Your task to perform on an android device: check google app version Image 0: 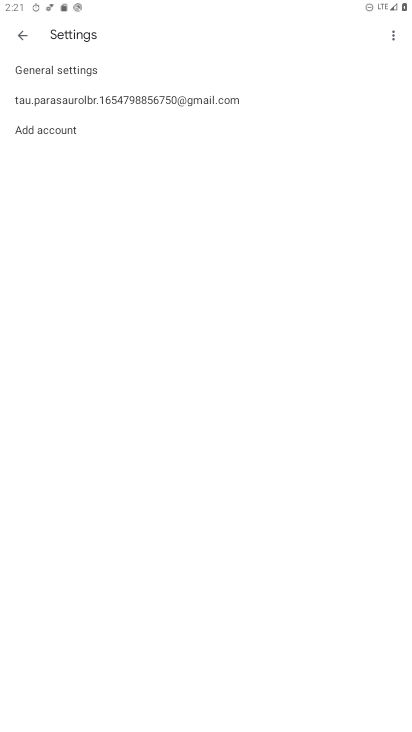
Step 0: press home button
Your task to perform on an android device: check google app version Image 1: 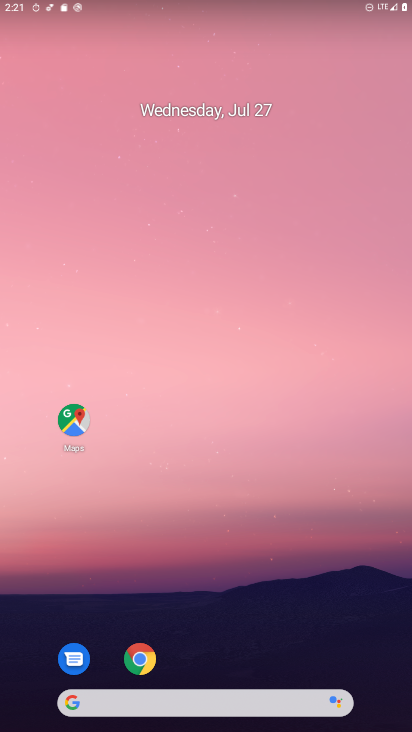
Step 1: drag from (319, 606) to (200, 77)
Your task to perform on an android device: check google app version Image 2: 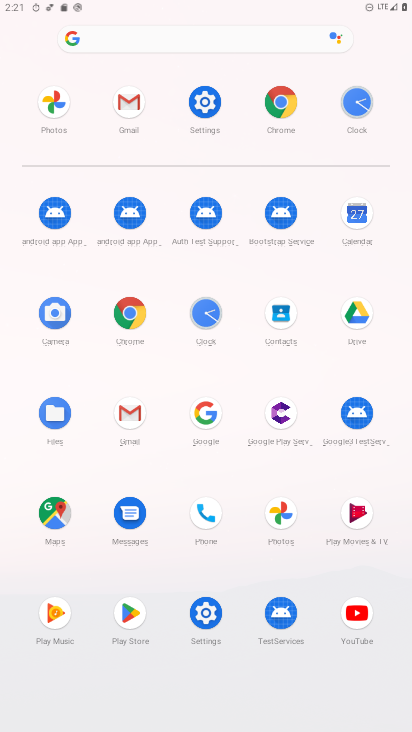
Step 2: click (202, 408)
Your task to perform on an android device: check google app version Image 3: 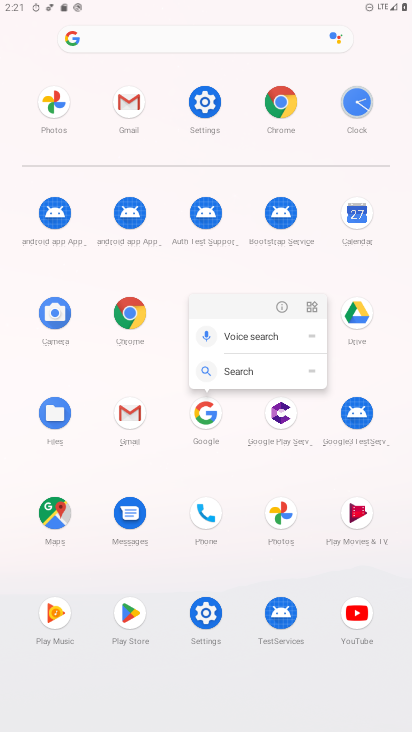
Step 3: click (277, 313)
Your task to perform on an android device: check google app version Image 4: 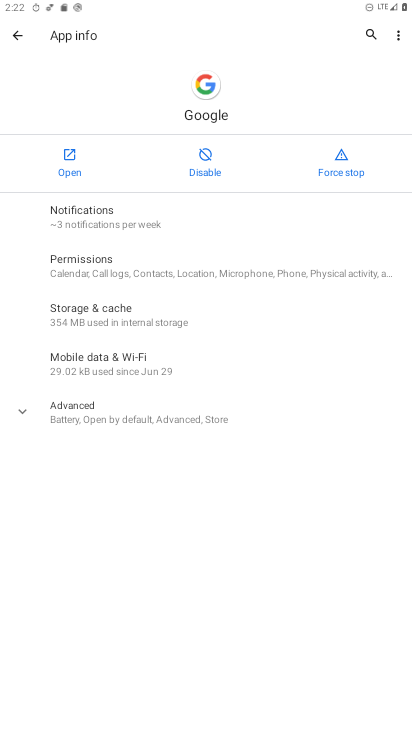
Step 4: click (108, 430)
Your task to perform on an android device: check google app version Image 5: 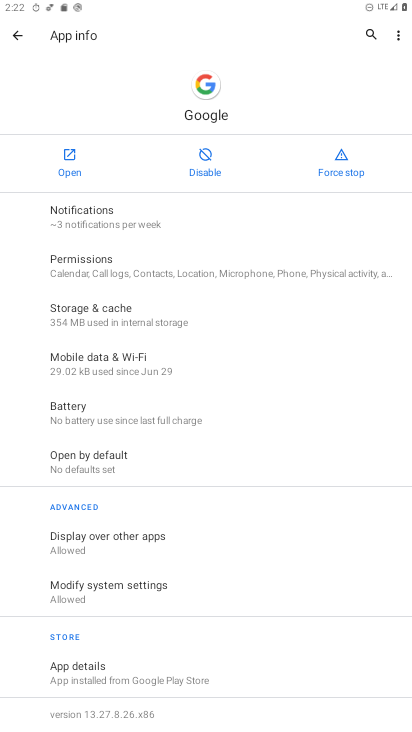
Step 5: task complete